Your task to perform on an android device: see creations saved in the google photos Image 0: 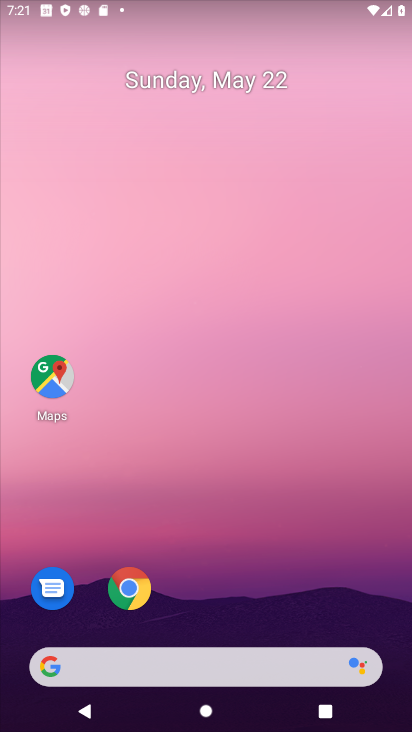
Step 0: drag from (268, 546) to (181, 86)
Your task to perform on an android device: see creations saved in the google photos Image 1: 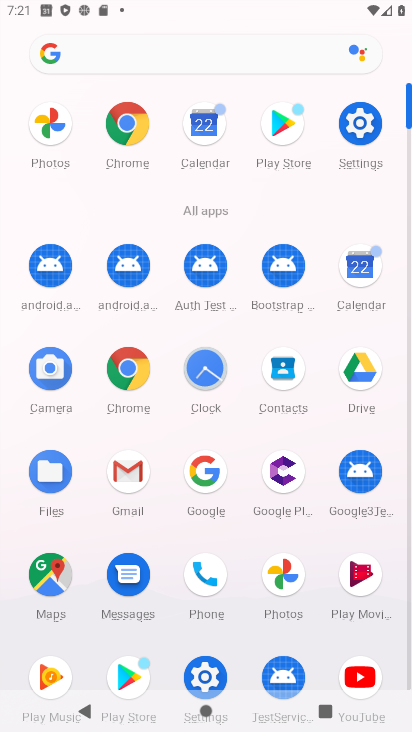
Step 1: click (49, 119)
Your task to perform on an android device: see creations saved in the google photos Image 2: 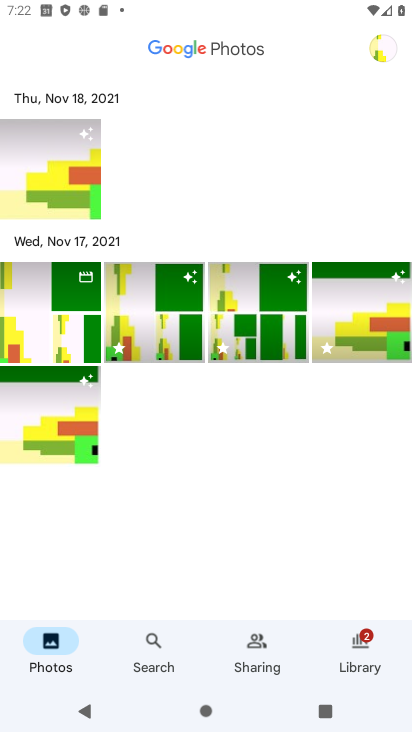
Step 2: click (144, 636)
Your task to perform on an android device: see creations saved in the google photos Image 3: 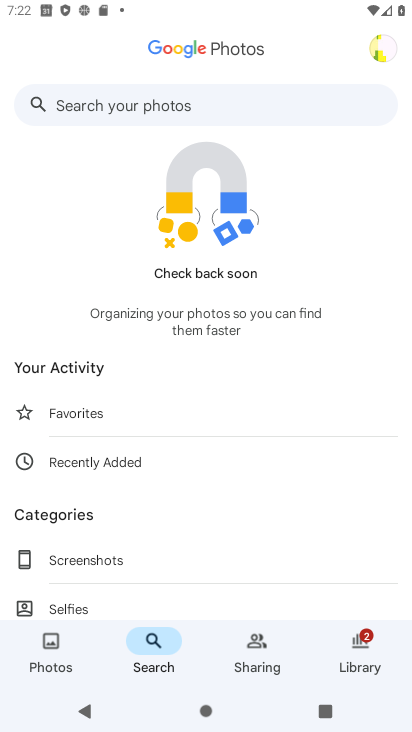
Step 3: click (127, 101)
Your task to perform on an android device: see creations saved in the google photos Image 4: 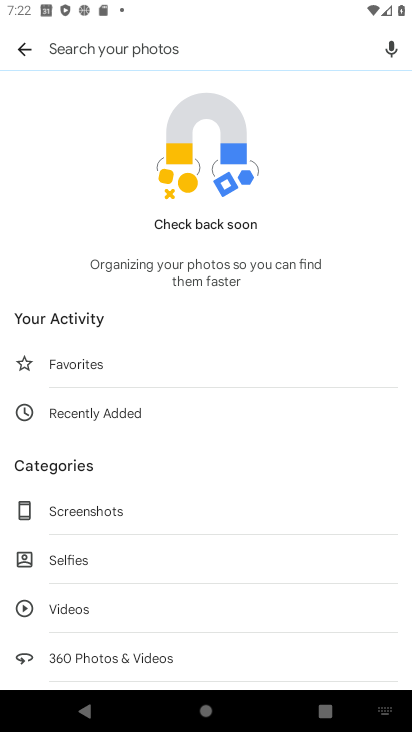
Step 4: type "creations"
Your task to perform on an android device: see creations saved in the google photos Image 5: 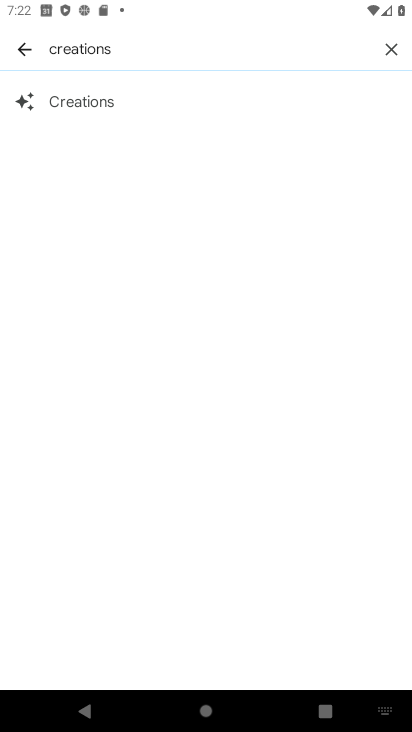
Step 5: click (100, 102)
Your task to perform on an android device: see creations saved in the google photos Image 6: 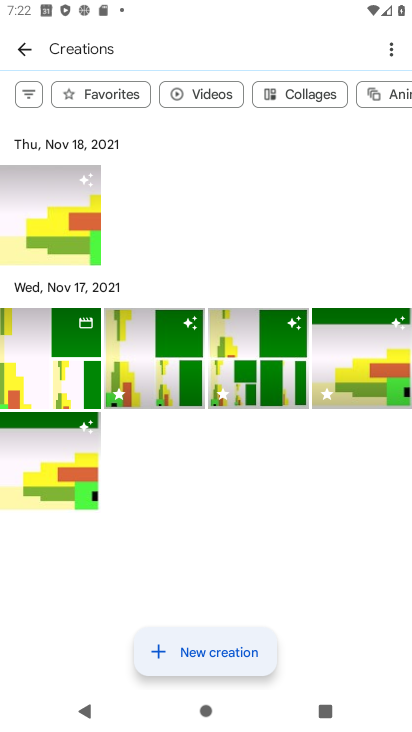
Step 6: task complete